Your task to perform on an android device: read, delete, or share a saved page in the chrome app Image 0: 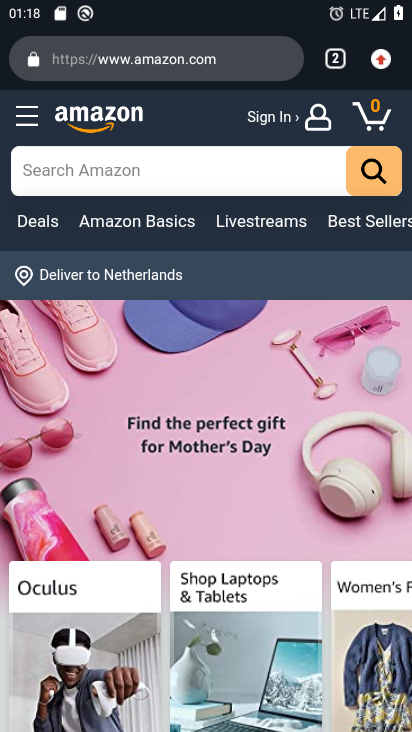
Step 0: click (385, 55)
Your task to perform on an android device: read, delete, or share a saved page in the chrome app Image 1: 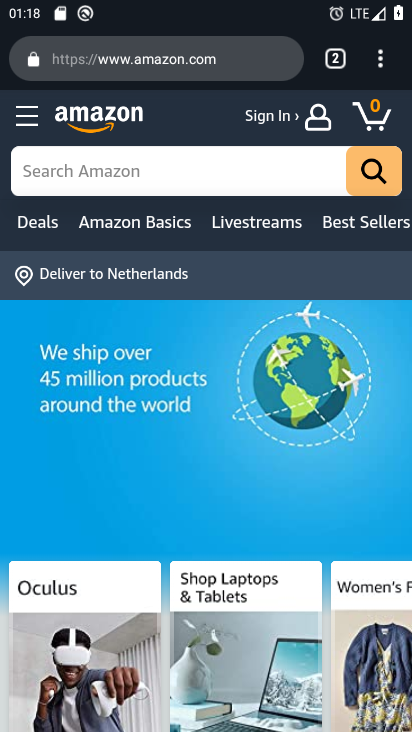
Step 1: click (382, 62)
Your task to perform on an android device: read, delete, or share a saved page in the chrome app Image 2: 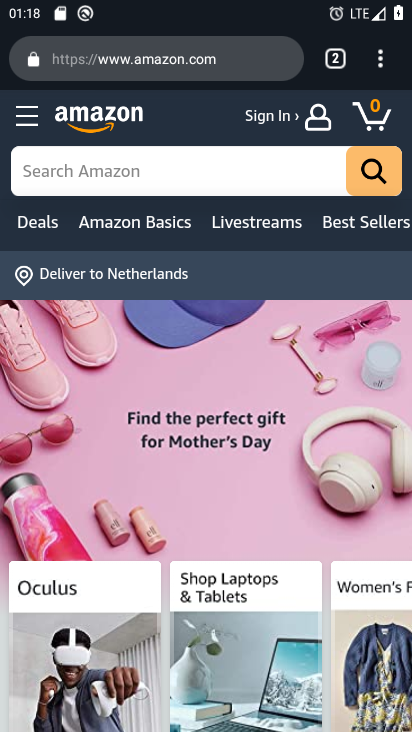
Step 2: click (382, 61)
Your task to perform on an android device: read, delete, or share a saved page in the chrome app Image 3: 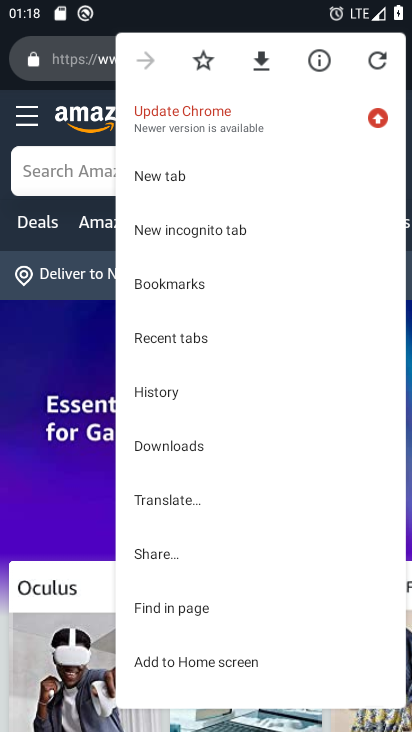
Step 3: click (205, 334)
Your task to perform on an android device: read, delete, or share a saved page in the chrome app Image 4: 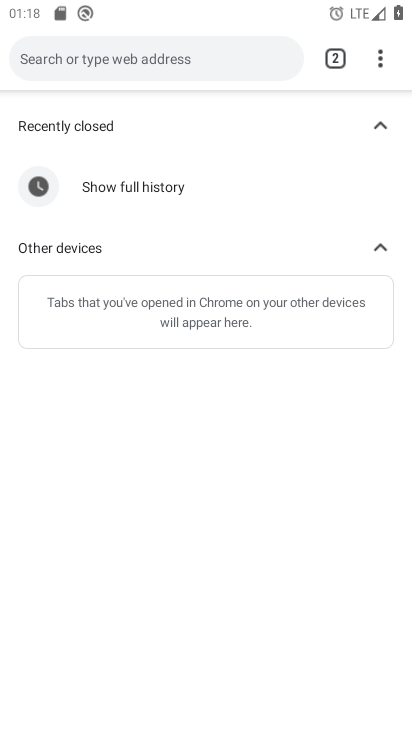
Step 4: click (381, 59)
Your task to perform on an android device: read, delete, or share a saved page in the chrome app Image 5: 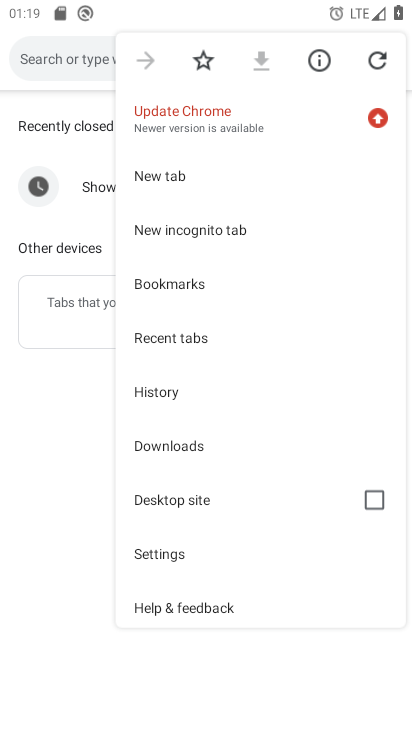
Step 5: click (161, 435)
Your task to perform on an android device: read, delete, or share a saved page in the chrome app Image 6: 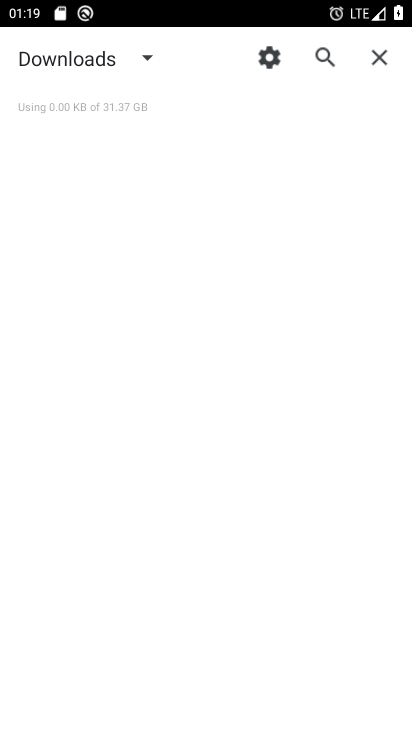
Step 6: task complete